Your task to perform on an android device: toggle wifi Image 0: 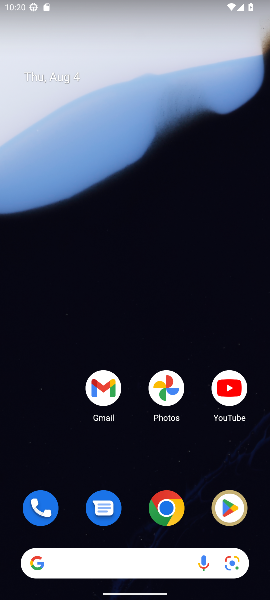
Step 0: drag from (146, 16) to (97, 364)
Your task to perform on an android device: toggle wifi Image 1: 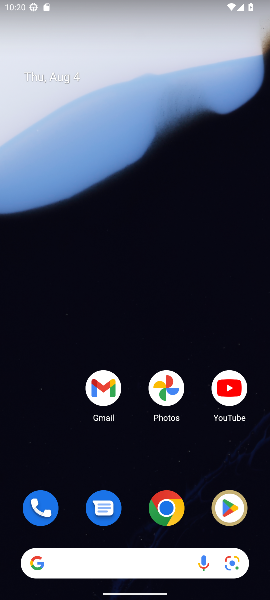
Step 1: drag from (182, 0) to (150, 328)
Your task to perform on an android device: toggle wifi Image 2: 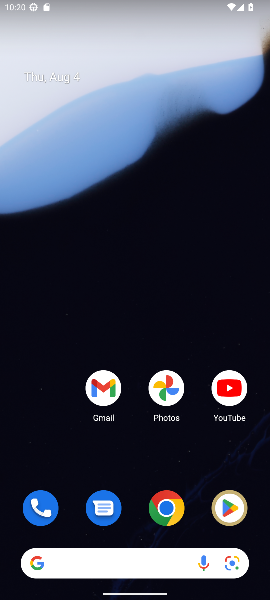
Step 2: drag from (191, 0) to (214, 322)
Your task to perform on an android device: toggle wifi Image 3: 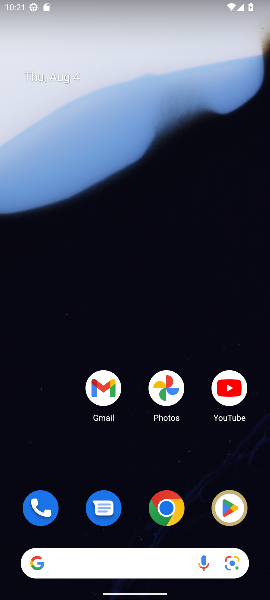
Step 3: drag from (151, 27) to (170, 464)
Your task to perform on an android device: toggle wifi Image 4: 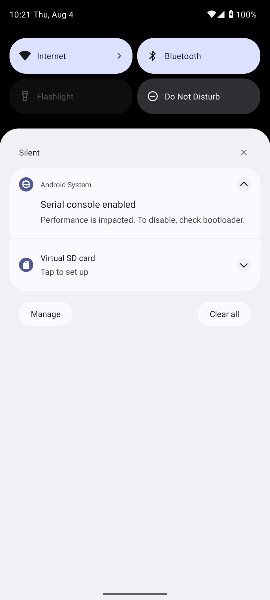
Step 4: click (96, 52)
Your task to perform on an android device: toggle wifi Image 5: 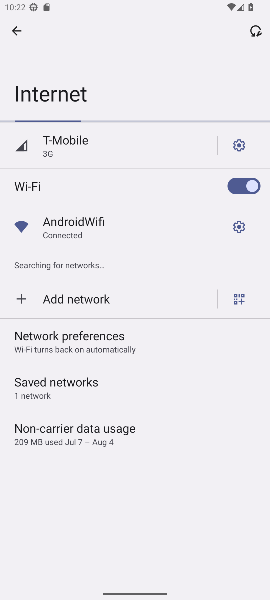
Step 5: click (253, 181)
Your task to perform on an android device: toggle wifi Image 6: 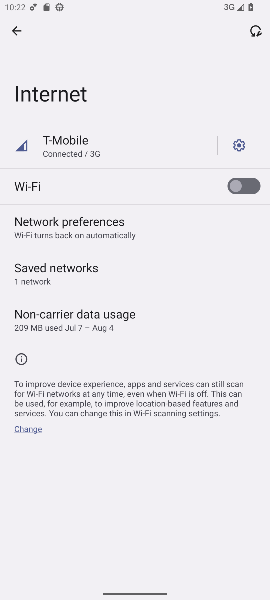
Step 6: task complete